Your task to perform on an android device: turn off translation in the chrome app Image 0: 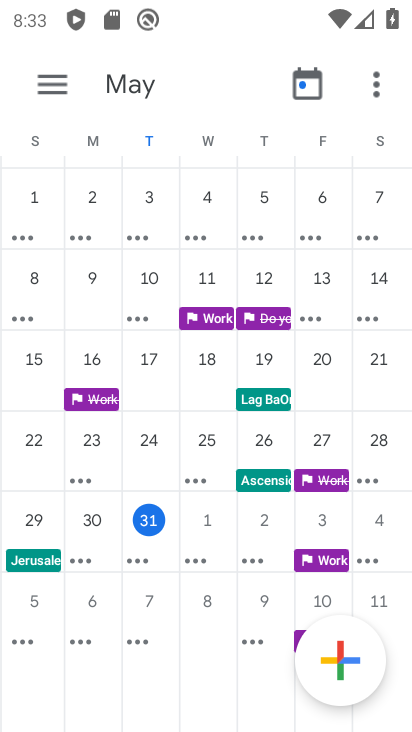
Step 0: press home button
Your task to perform on an android device: turn off translation in the chrome app Image 1: 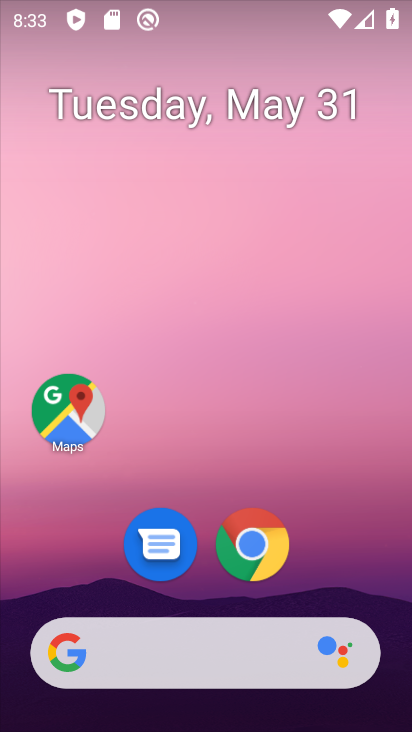
Step 1: click (246, 551)
Your task to perform on an android device: turn off translation in the chrome app Image 2: 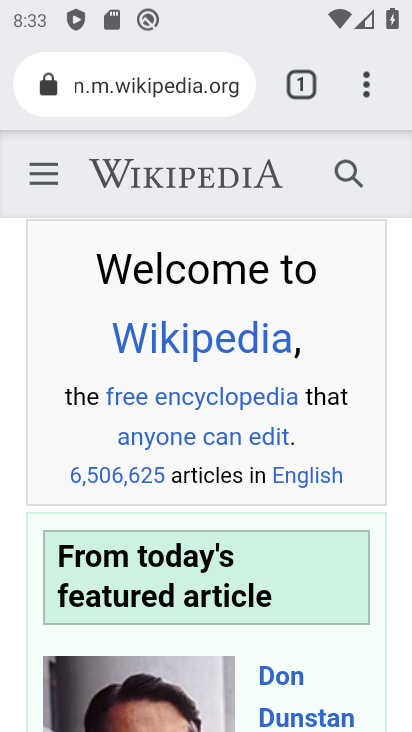
Step 2: drag from (365, 84) to (118, 592)
Your task to perform on an android device: turn off translation in the chrome app Image 3: 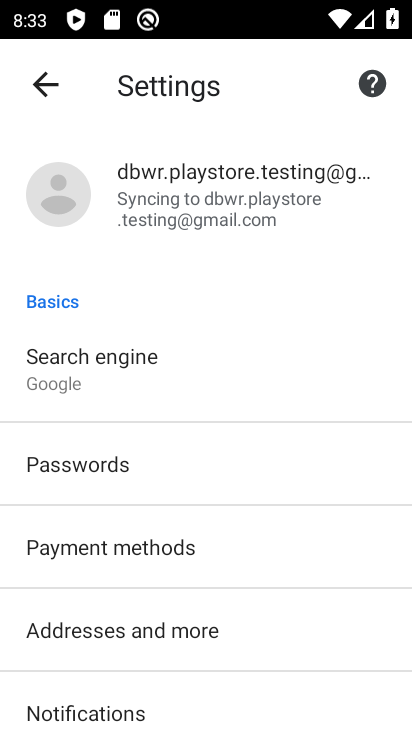
Step 3: drag from (172, 639) to (90, 170)
Your task to perform on an android device: turn off translation in the chrome app Image 4: 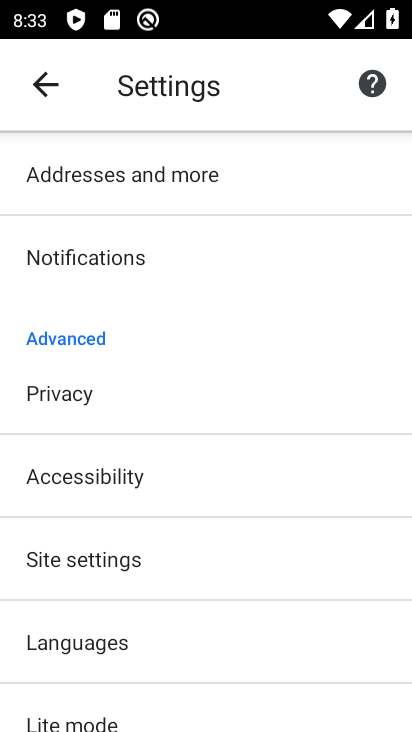
Step 4: click (143, 626)
Your task to perform on an android device: turn off translation in the chrome app Image 5: 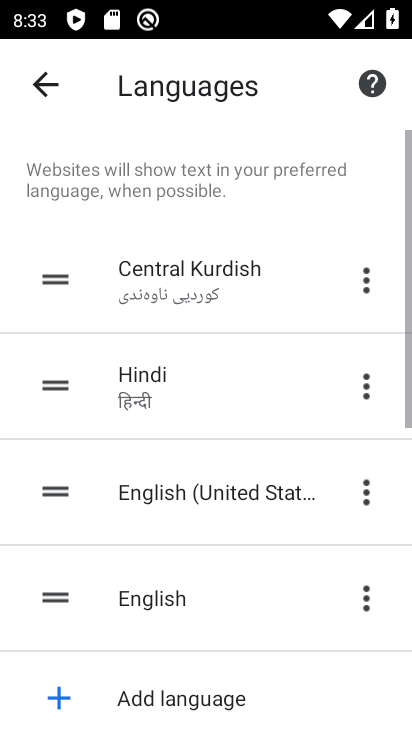
Step 5: drag from (264, 615) to (194, 276)
Your task to perform on an android device: turn off translation in the chrome app Image 6: 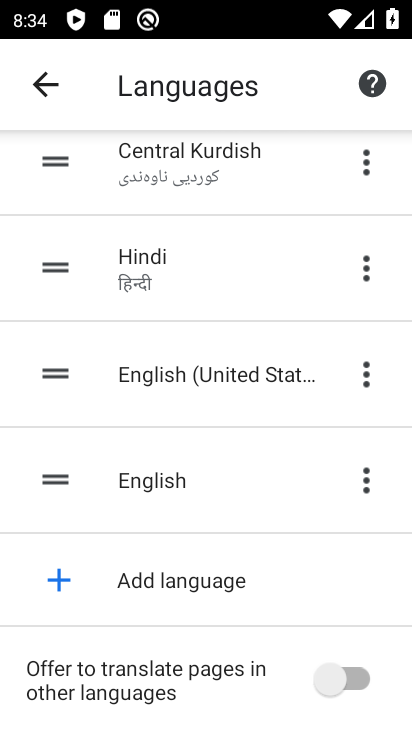
Step 6: click (315, 382)
Your task to perform on an android device: turn off translation in the chrome app Image 7: 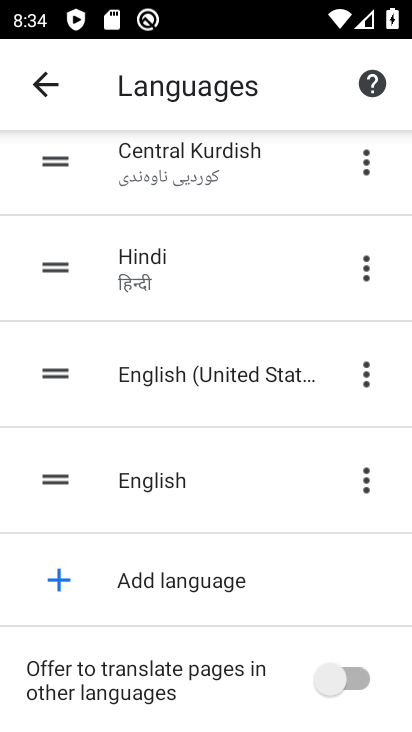
Step 7: task complete